Your task to perform on an android device: toggle location history Image 0: 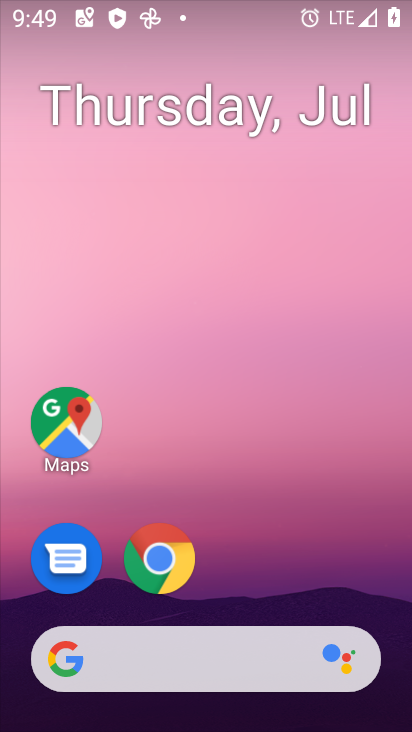
Step 0: drag from (334, 575) to (348, 113)
Your task to perform on an android device: toggle location history Image 1: 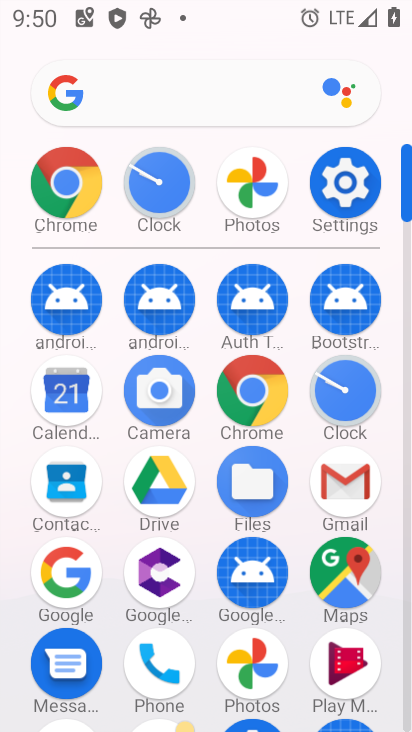
Step 1: click (333, 202)
Your task to perform on an android device: toggle location history Image 2: 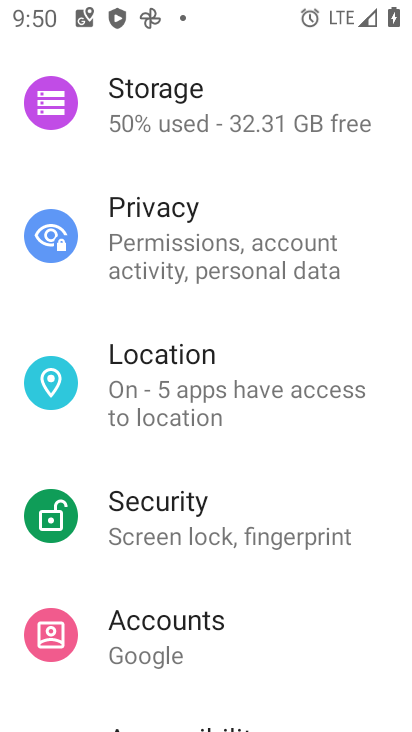
Step 2: click (252, 380)
Your task to perform on an android device: toggle location history Image 3: 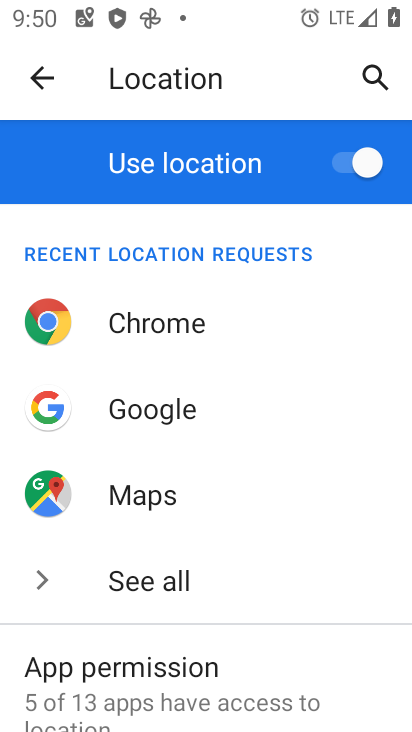
Step 3: drag from (324, 569) to (334, 514)
Your task to perform on an android device: toggle location history Image 4: 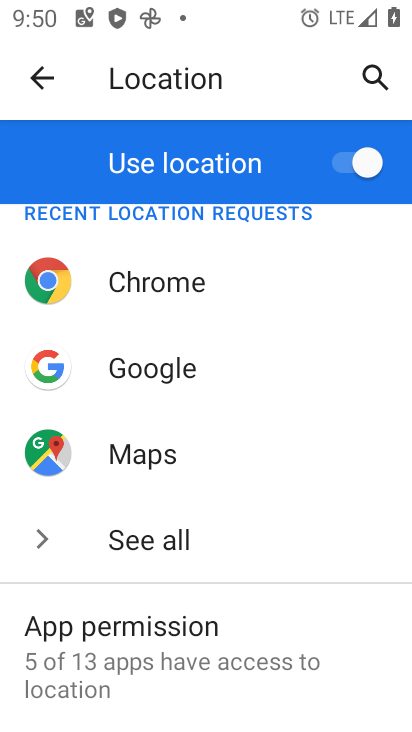
Step 4: drag from (334, 580) to (333, 486)
Your task to perform on an android device: toggle location history Image 5: 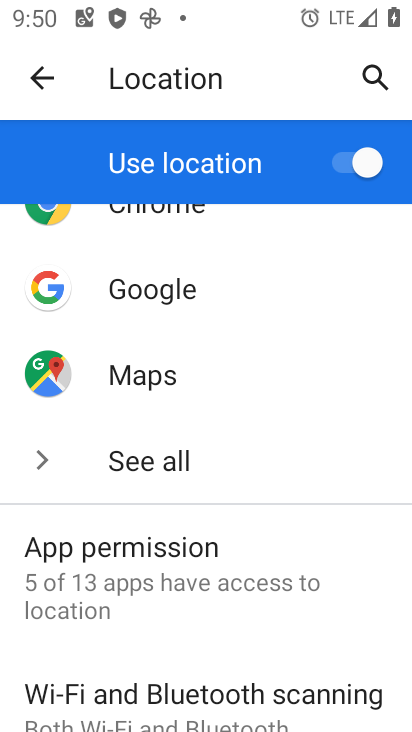
Step 5: drag from (306, 602) to (311, 506)
Your task to perform on an android device: toggle location history Image 6: 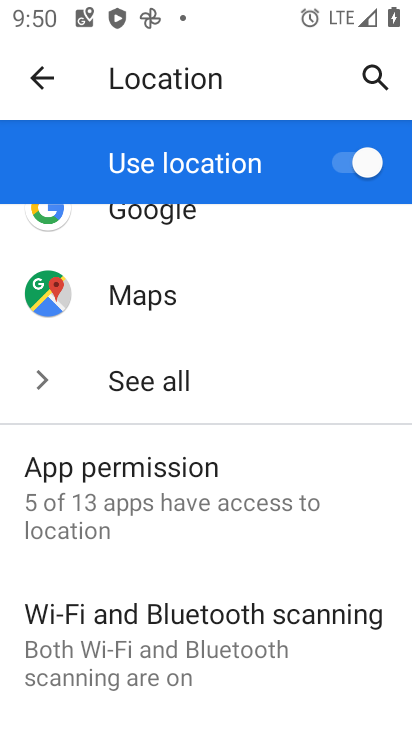
Step 6: click (295, 594)
Your task to perform on an android device: toggle location history Image 7: 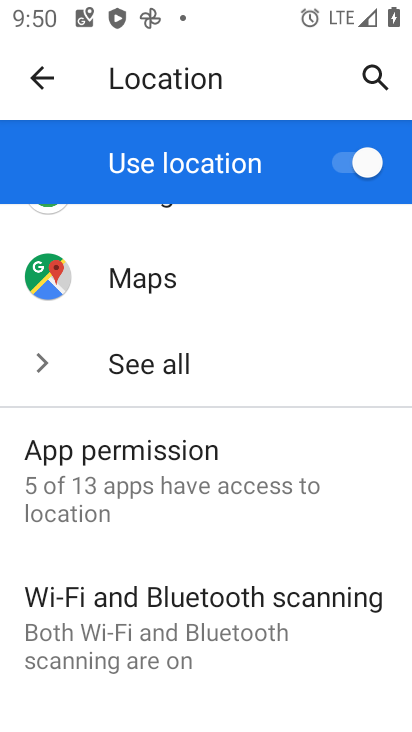
Step 7: drag from (303, 620) to (296, 471)
Your task to perform on an android device: toggle location history Image 8: 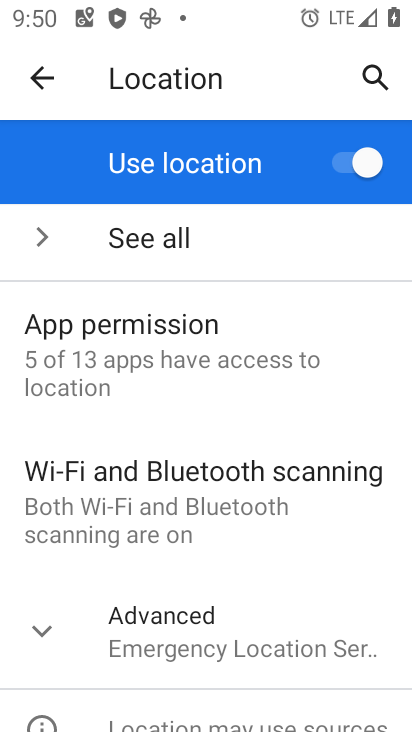
Step 8: click (276, 650)
Your task to perform on an android device: toggle location history Image 9: 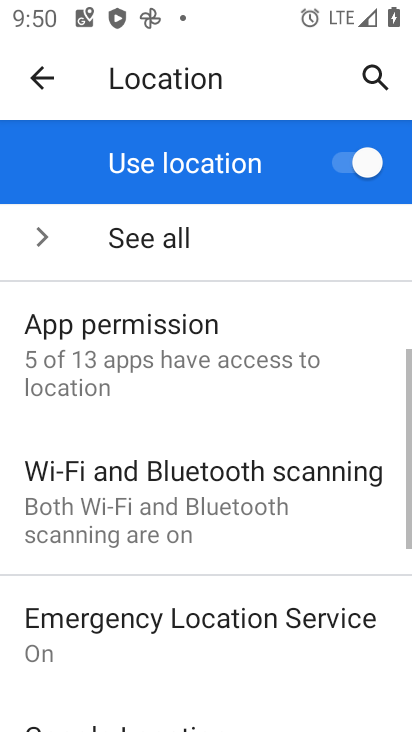
Step 9: drag from (277, 648) to (293, 549)
Your task to perform on an android device: toggle location history Image 10: 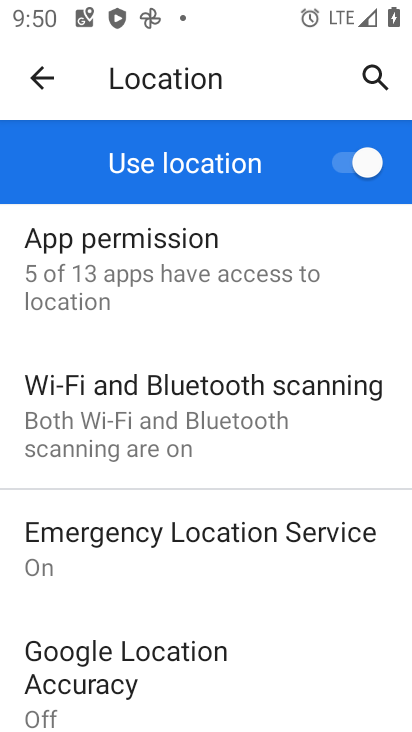
Step 10: drag from (304, 635) to (290, 390)
Your task to perform on an android device: toggle location history Image 11: 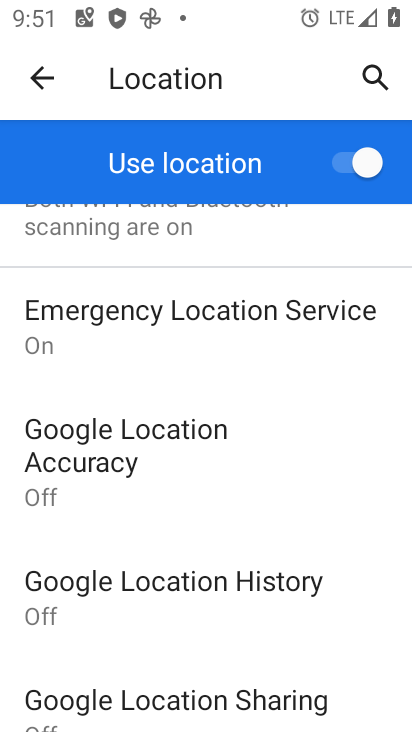
Step 11: drag from (309, 542) to (311, 451)
Your task to perform on an android device: toggle location history Image 12: 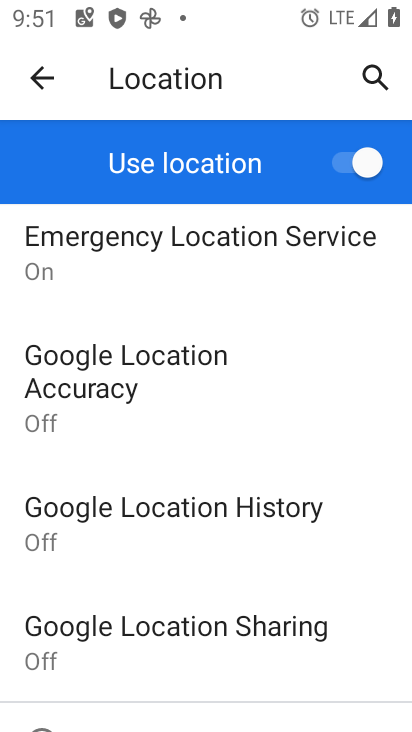
Step 12: click (299, 536)
Your task to perform on an android device: toggle location history Image 13: 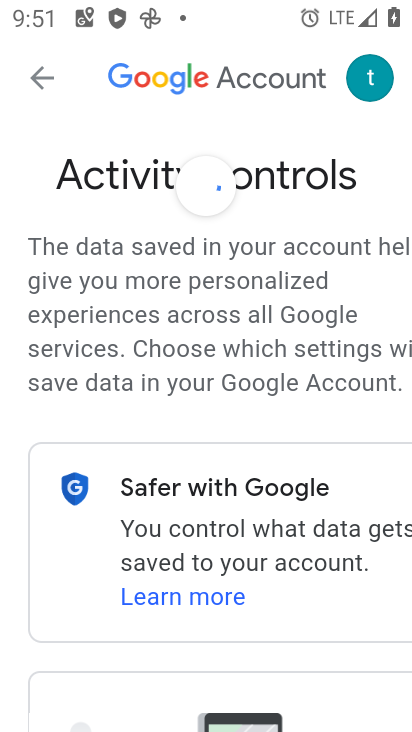
Step 13: drag from (303, 564) to (315, 402)
Your task to perform on an android device: toggle location history Image 14: 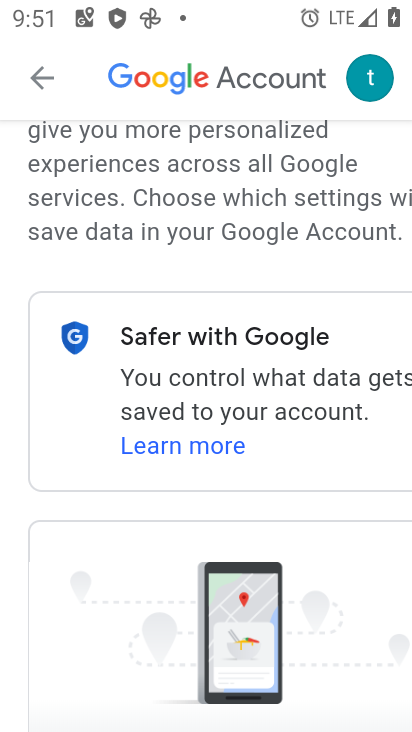
Step 14: drag from (305, 605) to (303, 495)
Your task to perform on an android device: toggle location history Image 15: 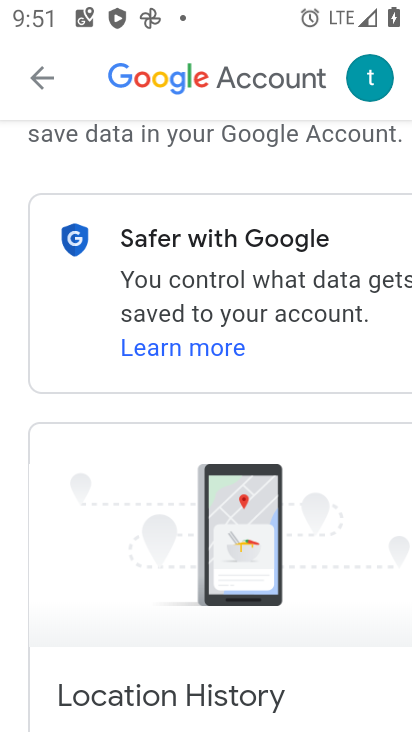
Step 15: drag from (303, 635) to (304, 519)
Your task to perform on an android device: toggle location history Image 16: 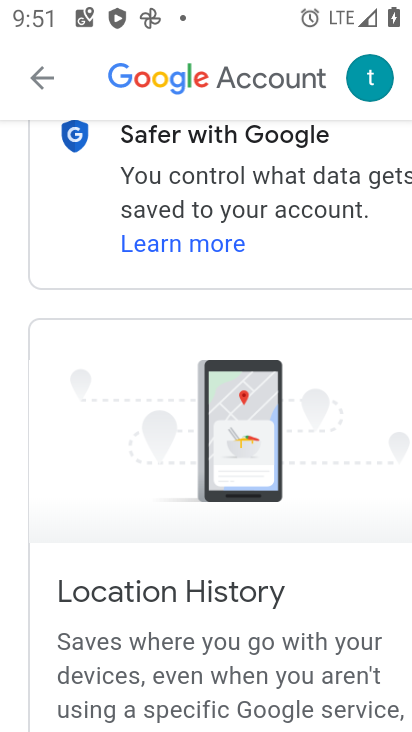
Step 16: drag from (278, 680) to (274, 551)
Your task to perform on an android device: toggle location history Image 17: 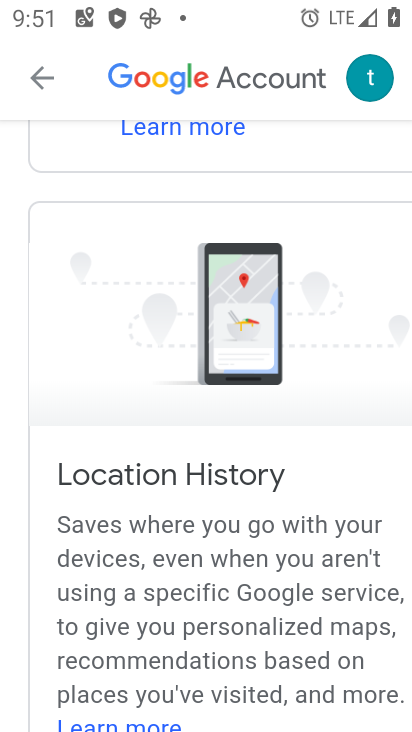
Step 17: drag from (281, 536) to (285, 383)
Your task to perform on an android device: toggle location history Image 18: 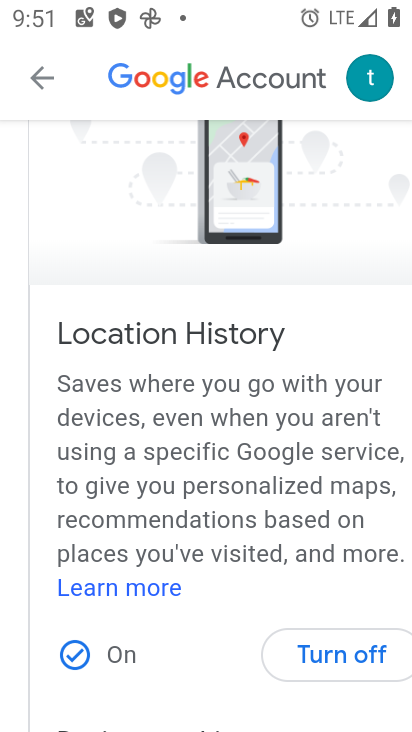
Step 18: click (331, 662)
Your task to perform on an android device: toggle location history Image 19: 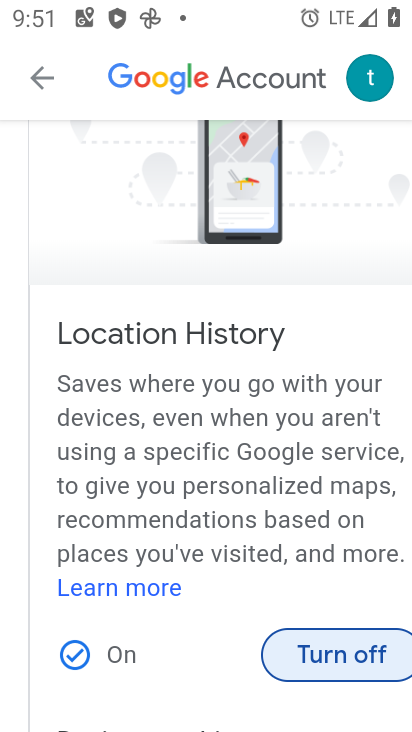
Step 19: click (344, 652)
Your task to perform on an android device: toggle location history Image 20: 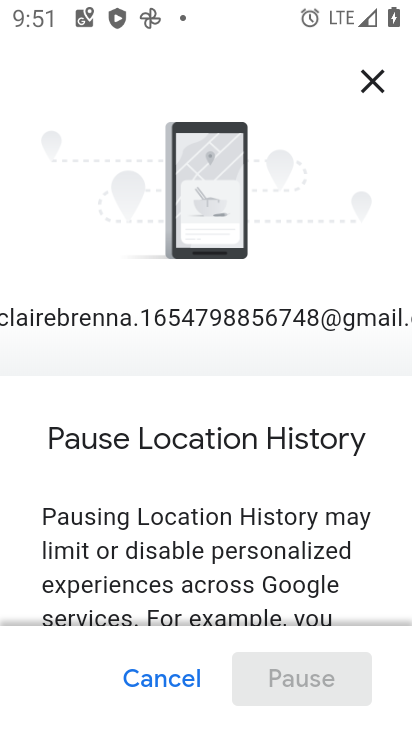
Step 20: drag from (264, 593) to (262, 466)
Your task to perform on an android device: toggle location history Image 21: 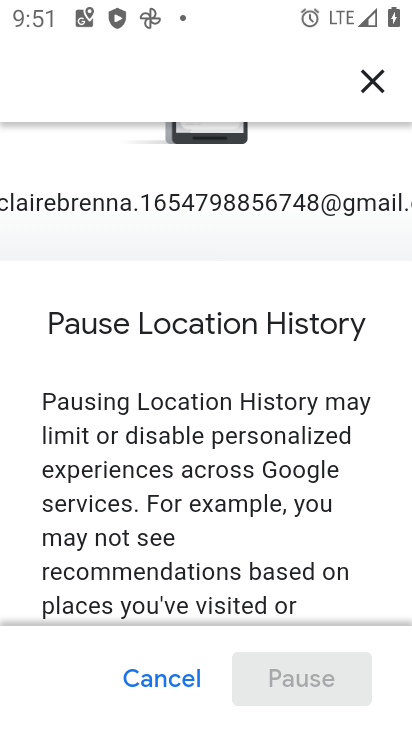
Step 21: drag from (277, 554) to (279, 422)
Your task to perform on an android device: toggle location history Image 22: 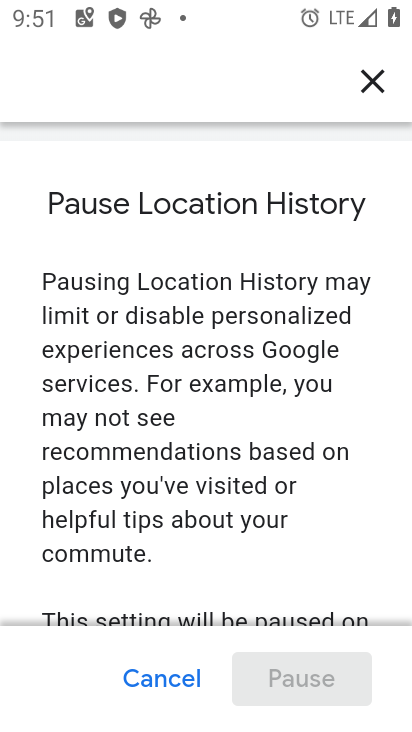
Step 22: drag from (277, 509) to (275, 413)
Your task to perform on an android device: toggle location history Image 23: 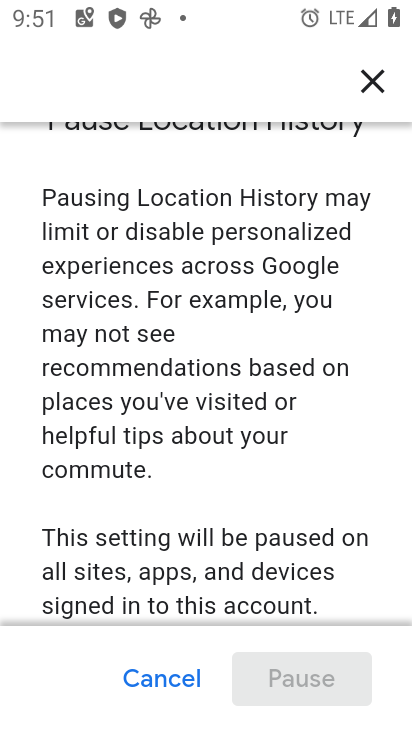
Step 23: drag from (274, 524) to (272, 426)
Your task to perform on an android device: toggle location history Image 24: 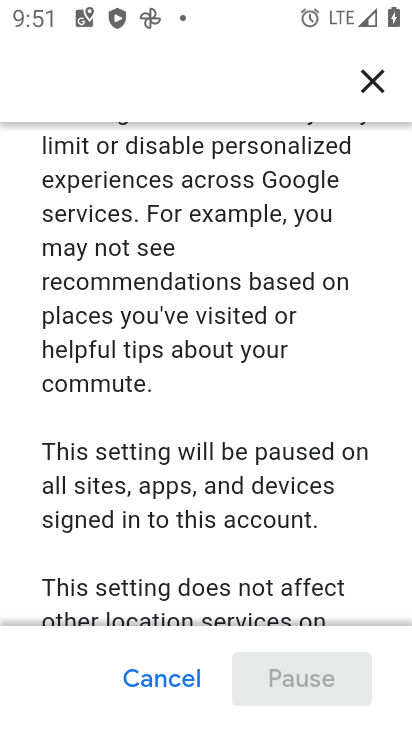
Step 24: drag from (280, 536) to (281, 438)
Your task to perform on an android device: toggle location history Image 25: 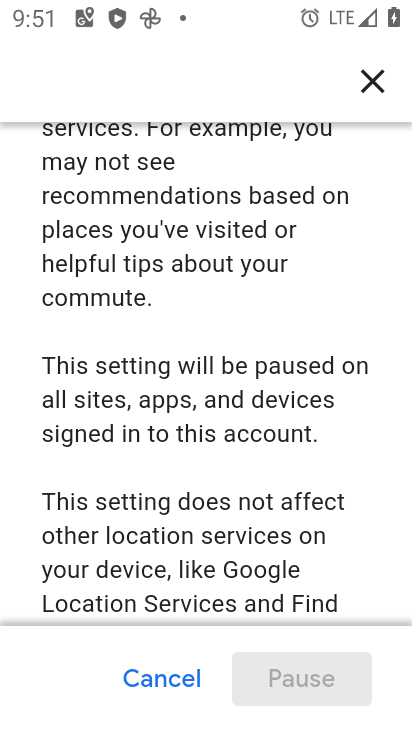
Step 25: drag from (294, 588) to (294, 486)
Your task to perform on an android device: toggle location history Image 26: 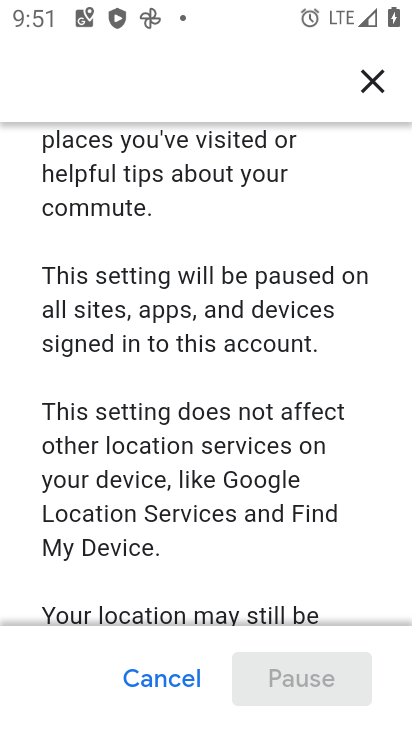
Step 26: drag from (286, 557) to (290, 455)
Your task to perform on an android device: toggle location history Image 27: 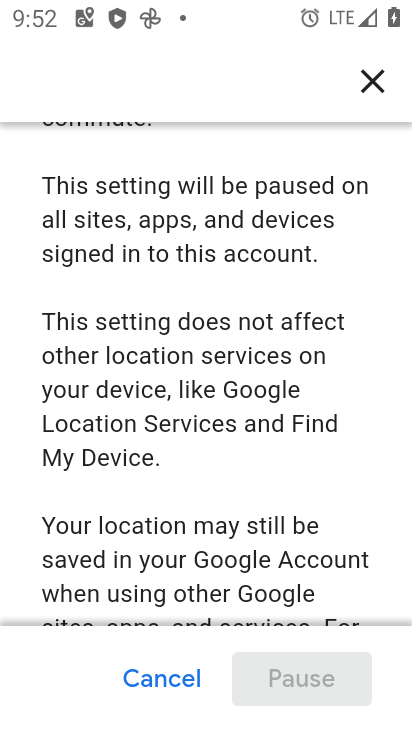
Step 27: drag from (289, 510) to (287, 465)
Your task to perform on an android device: toggle location history Image 28: 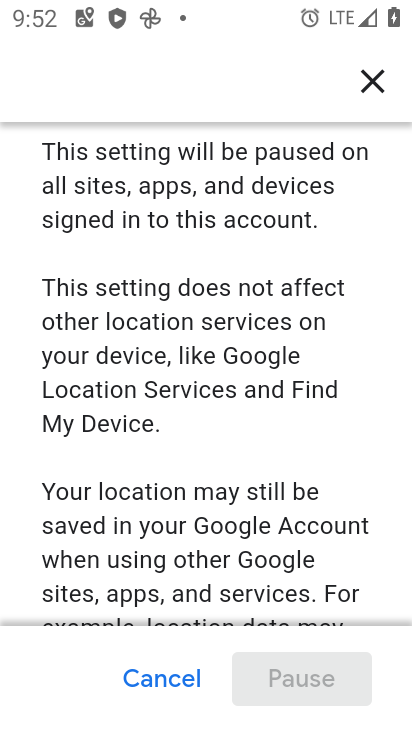
Step 28: drag from (304, 545) to (291, 405)
Your task to perform on an android device: toggle location history Image 29: 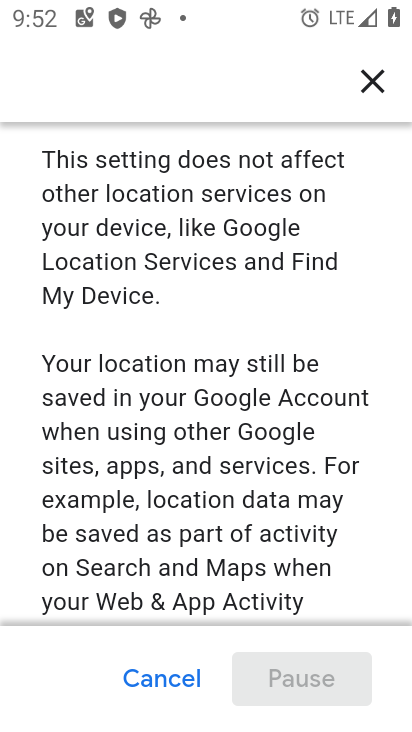
Step 29: drag from (322, 540) to (334, 304)
Your task to perform on an android device: toggle location history Image 30: 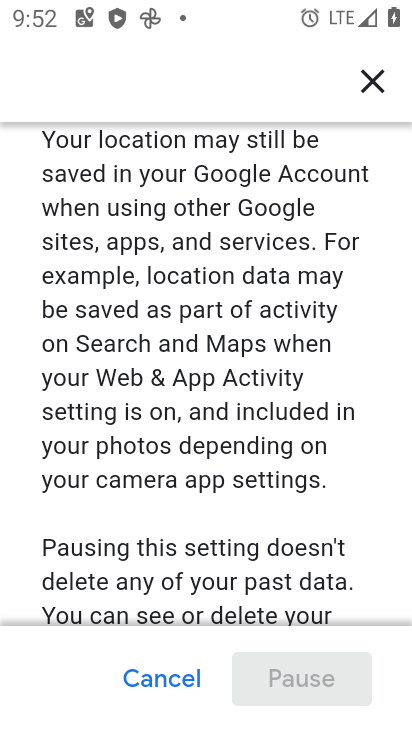
Step 30: drag from (334, 523) to (360, 317)
Your task to perform on an android device: toggle location history Image 31: 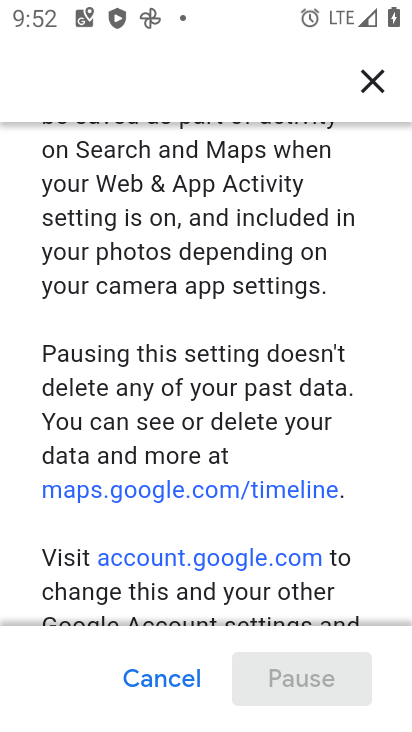
Step 31: drag from (346, 524) to (346, 351)
Your task to perform on an android device: toggle location history Image 32: 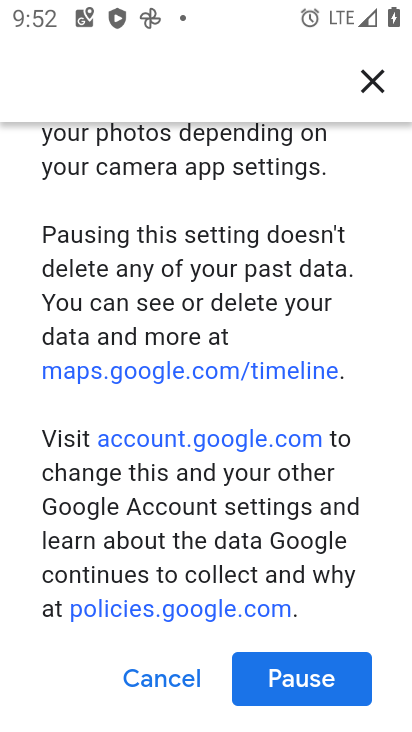
Step 32: click (339, 679)
Your task to perform on an android device: toggle location history Image 33: 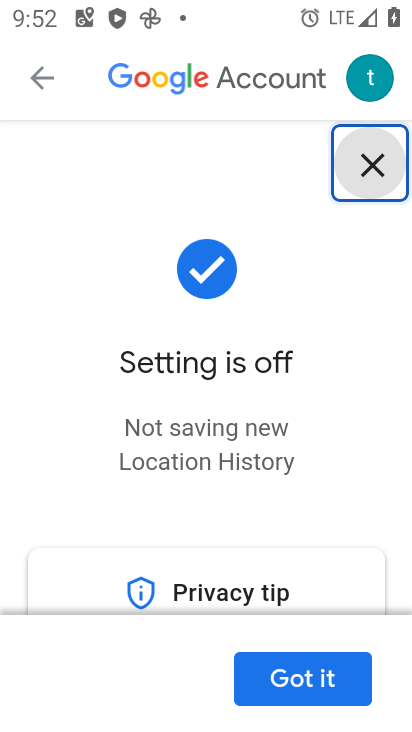
Step 33: task complete